Your task to perform on an android device: Open Google Chrome Image 0: 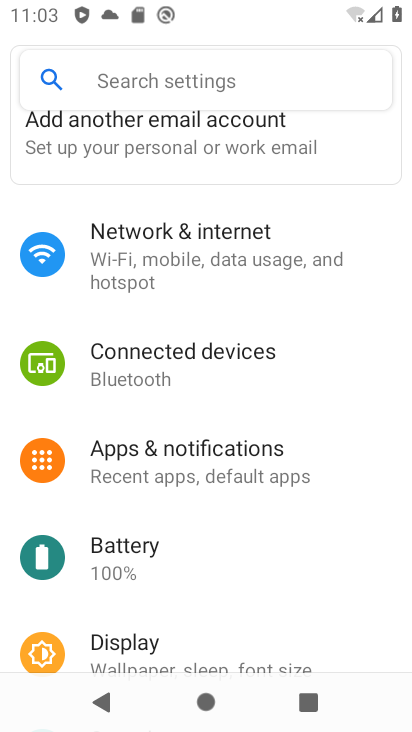
Step 0: press home button
Your task to perform on an android device: Open Google Chrome Image 1: 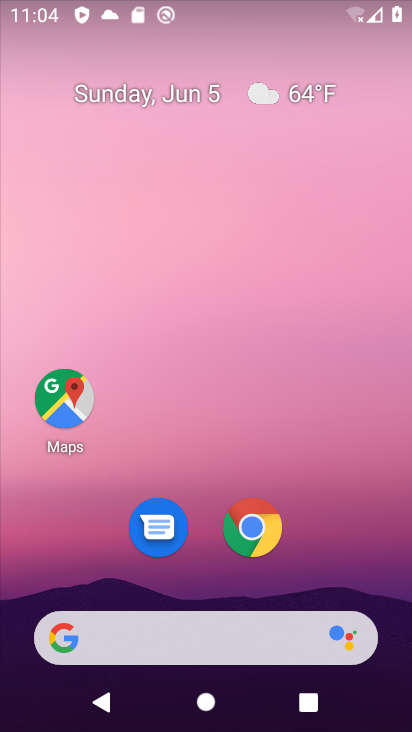
Step 1: click (248, 524)
Your task to perform on an android device: Open Google Chrome Image 2: 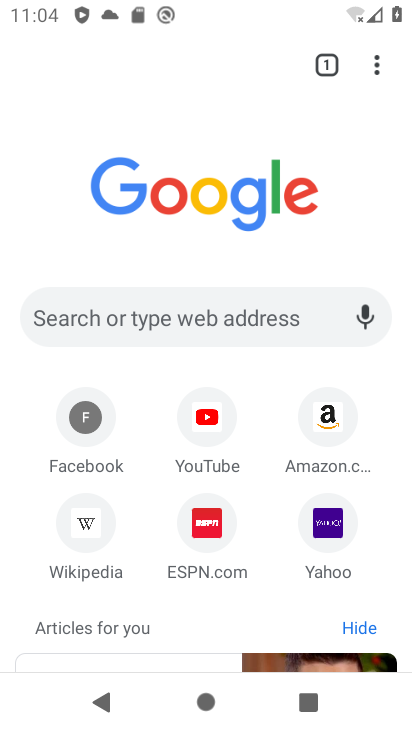
Step 2: task complete